Your task to perform on an android device: Search for pizza restaurants on Maps Image 0: 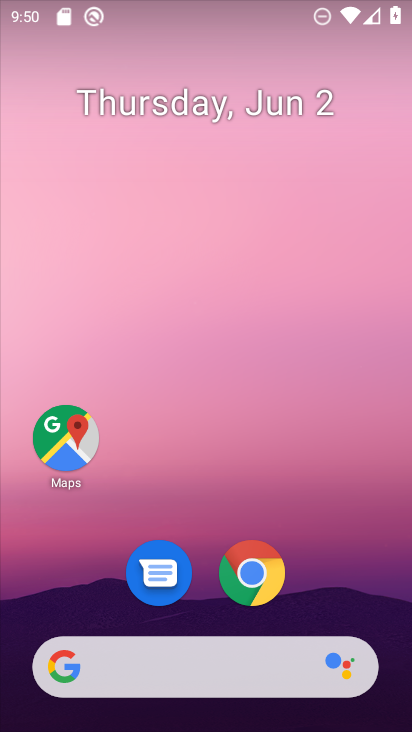
Step 0: click (65, 460)
Your task to perform on an android device: Search for pizza restaurants on Maps Image 1: 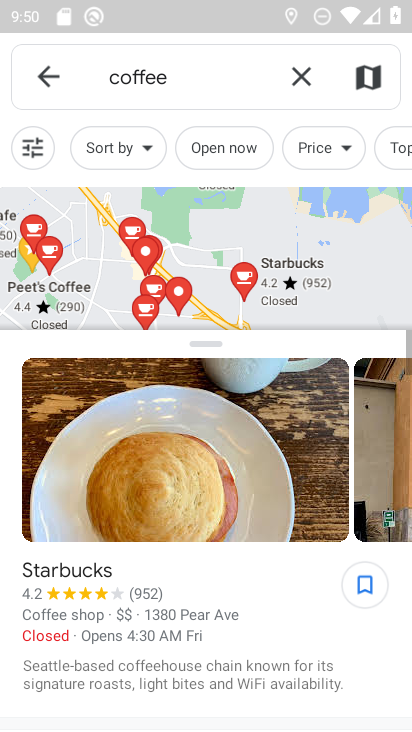
Step 1: click (171, 56)
Your task to perform on an android device: Search for pizza restaurants on Maps Image 2: 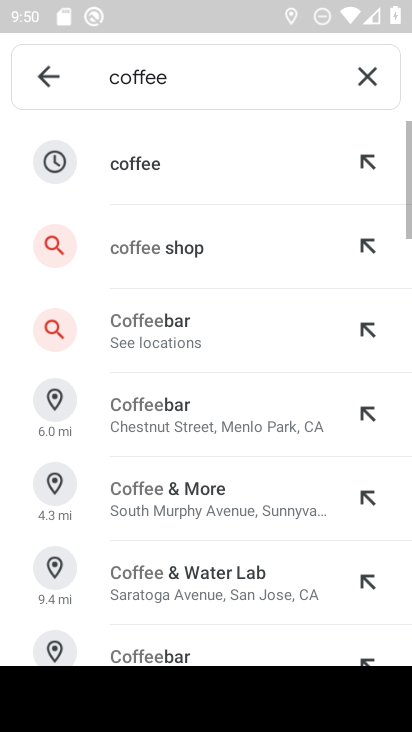
Step 2: click (362, 72)
Your task to perform on an android device: Search for pizza restaurants on Maps Image 3: 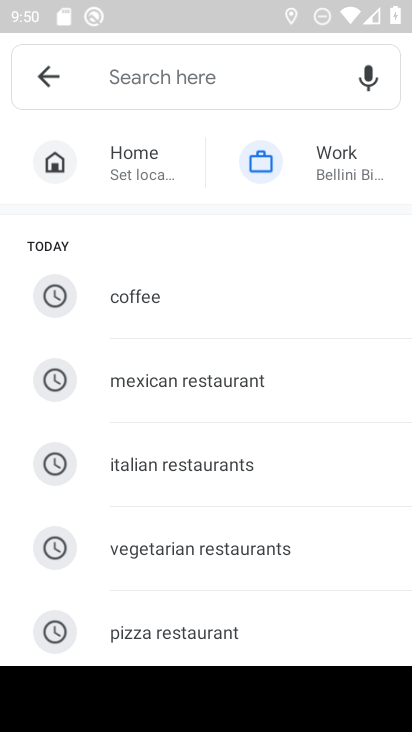
Step 3: click (250, 629)
Your task to perform on an android device: Search for pizza restaurants on Maps Image 4: 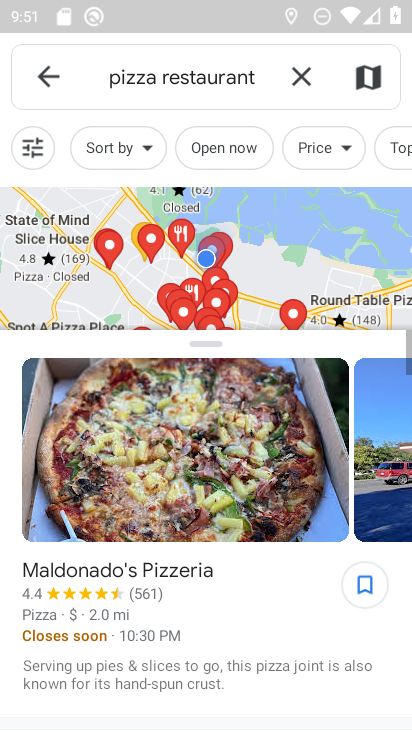
Step 4: type "s"
Your task to perform on an android device: Search for pizza restaurants on Maps Image 5: 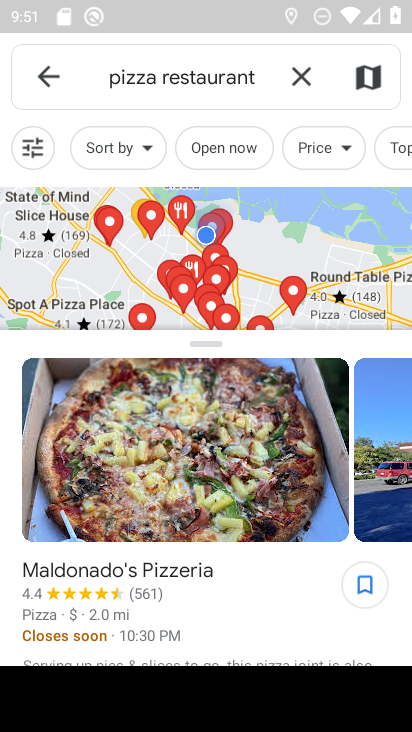
Step 5: press enter
Your task to perform on an android device: Search for pizza restaurants on Maps Image 6: 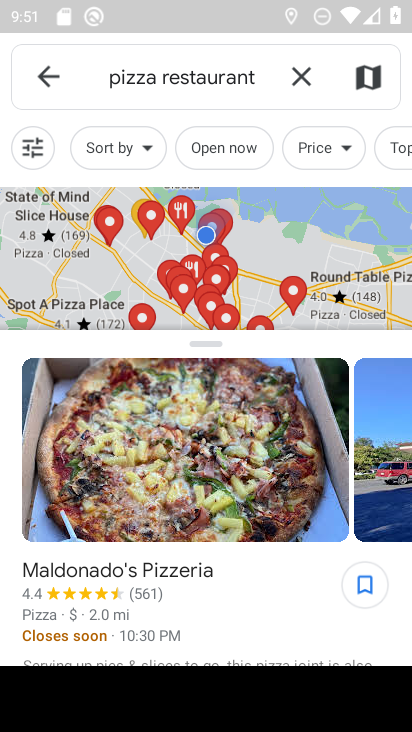
Step 6: click (188, 77)
Your task to perform on an android device: Search for pizza restaurants on Maps Image 7: 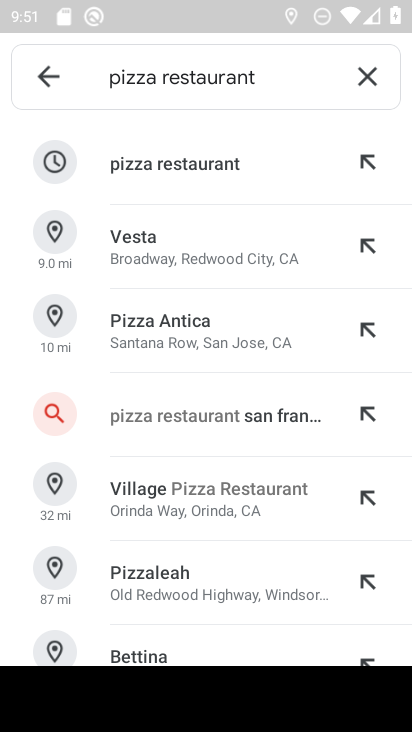
Step 7: type "s"
Your task to perform on an android device: Search for pizza restaurants on Maps Image 8: 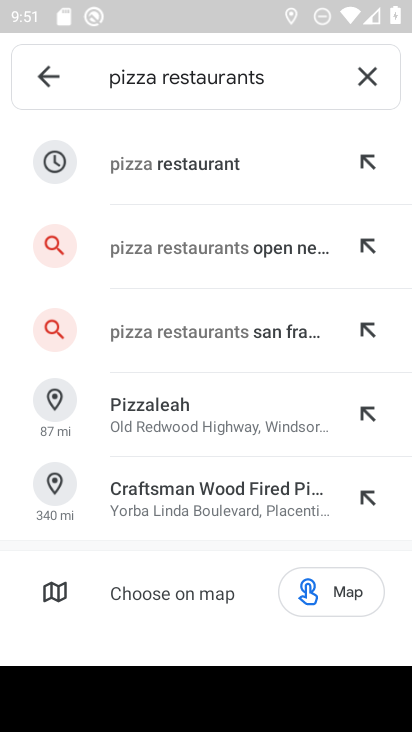
Step 8: type ""
Your task to perform on an android device: Search for pizza restaurants on Maps Image 9: 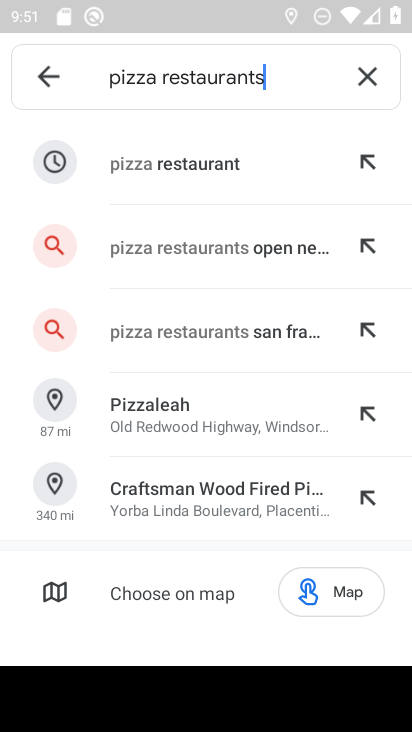
Step 9: press enter
Your task to perform on an android device: Search for pizza restaurants on Maps Image 10: 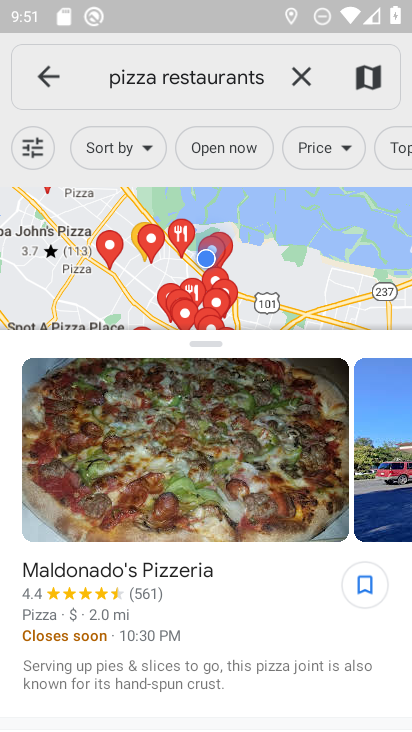
Step 10: task complete